Your task to perform on an android device: Show me recent news Image 0: 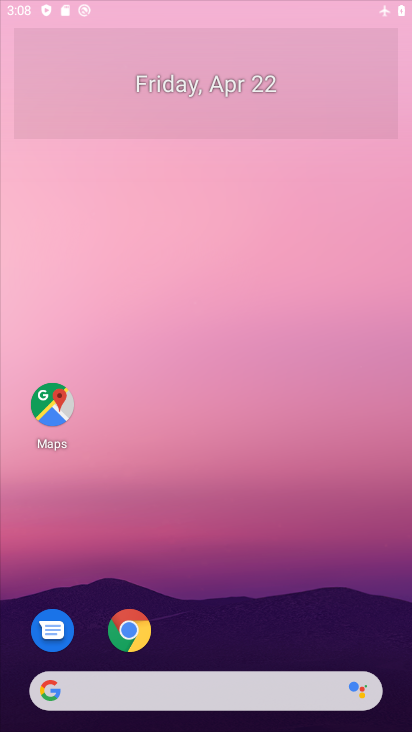
Step 0: drag from (283, 365) to (339, 171)
Your task to perform on an android device: Show me recent news Image 1: 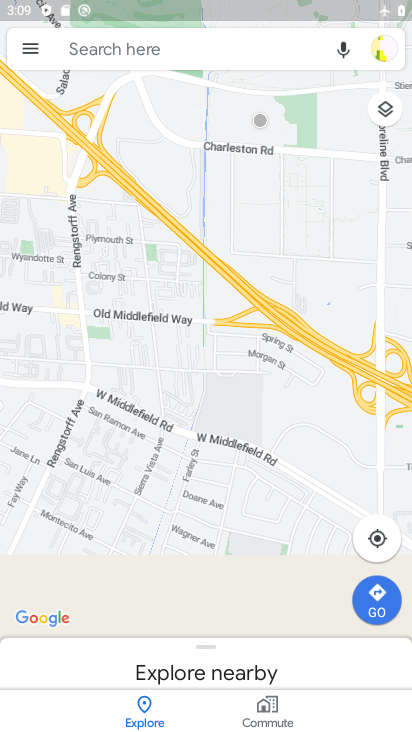
Step 1: press home button
Your task to perform on an android device: Show me recent news Image 2: 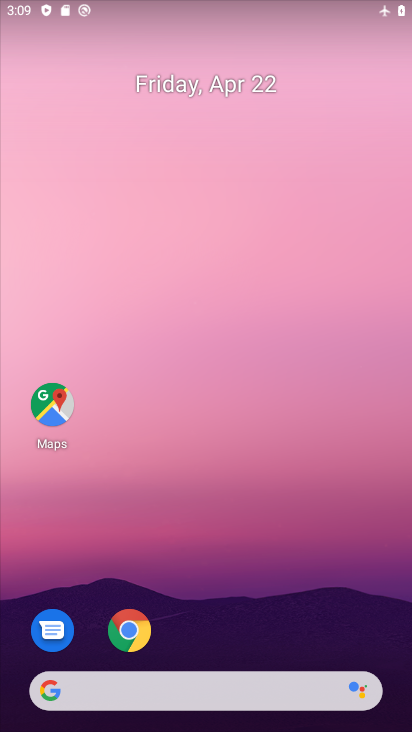
Step 2: drag from (183, 635) to (262, 41)
Your task to perform on an android device: Show me recent news Image 3: 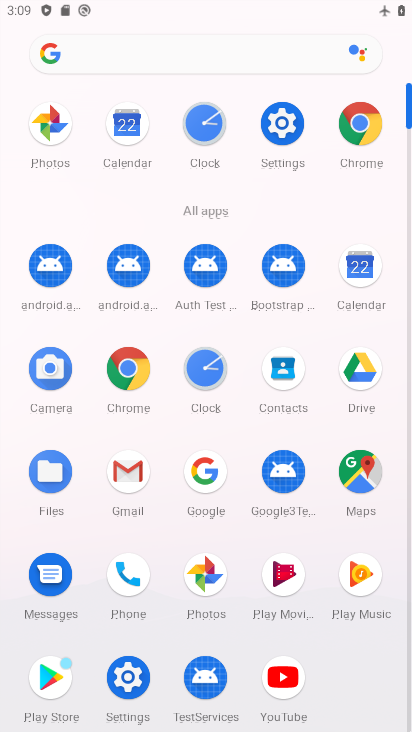
Step 3: click (164, 57)
Your task to perform on an android device: Show me recent news Image 4: 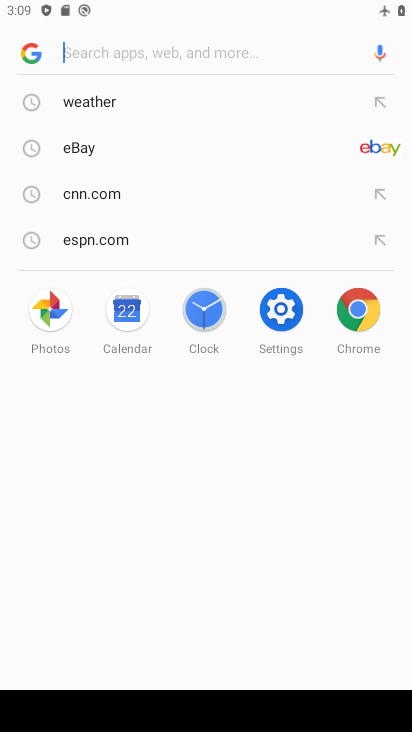
Step 4: type "recent news"
Your task to perform on an android device: Show me recent news Image 5: 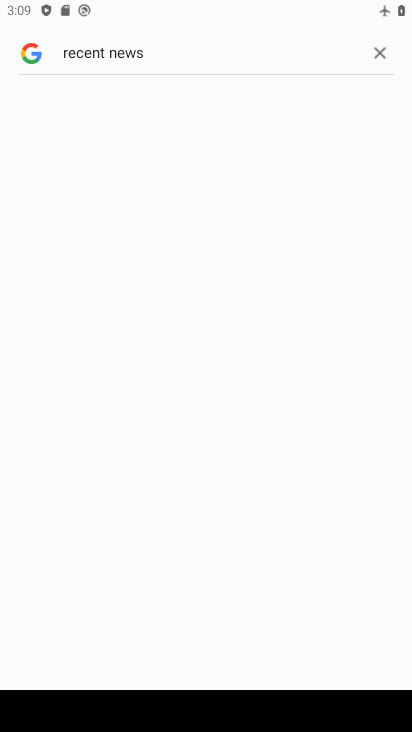
Step 5: task complete